Your task to perform on an android device: Do I have any events tomorrow? Image 0: 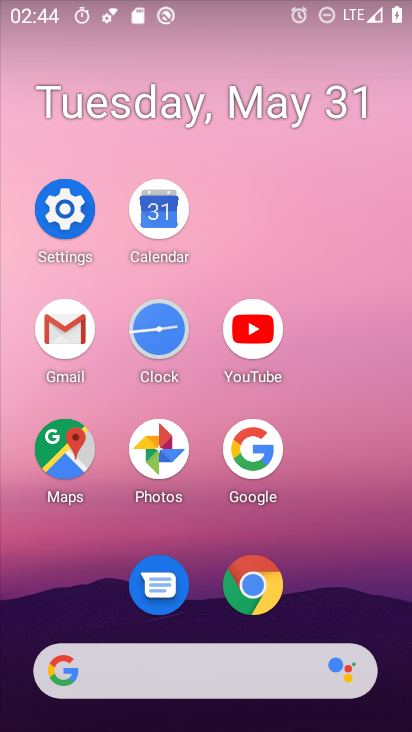
Step 0: click (168, 224)
Your task to perform on an android device: Do I have any events tomorrow? Image 1: 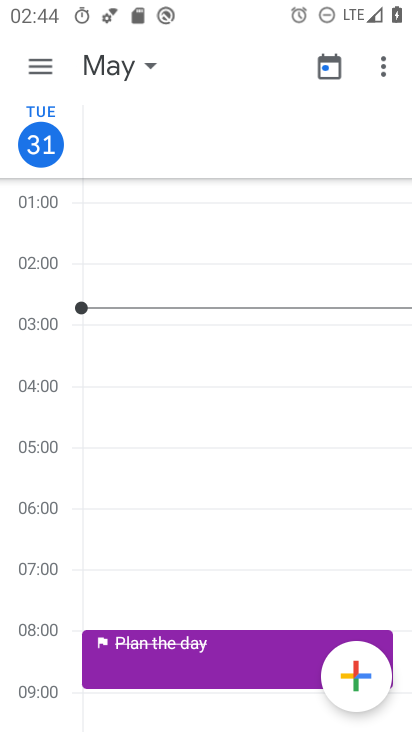
Step 1: task complete